Your task to perform on an android device: See recent photos Image 0: 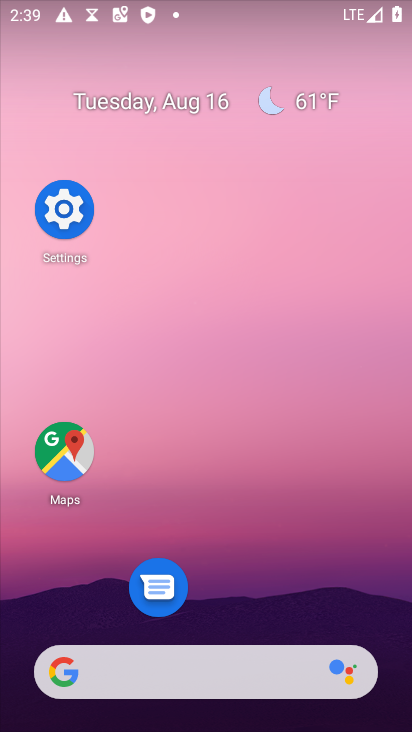
Step 0: drag from (240, 631) to (393, 0)
Your task to perform on an android device: See recent photos Image 1: 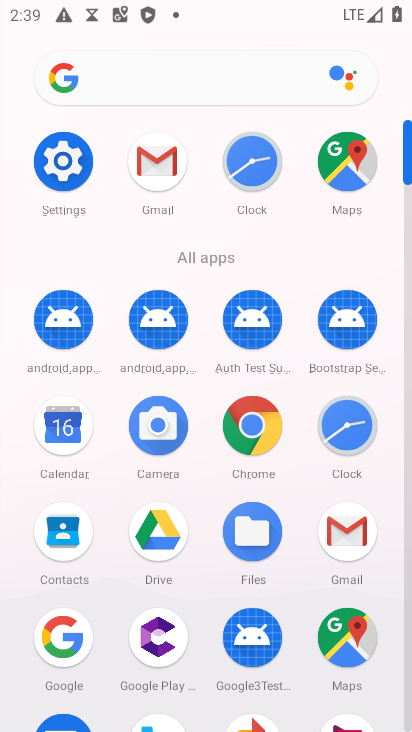
Step 1: drag from (202, 682) to (249, 116)
Your task to perform on an android device: See recent photos Image 2: 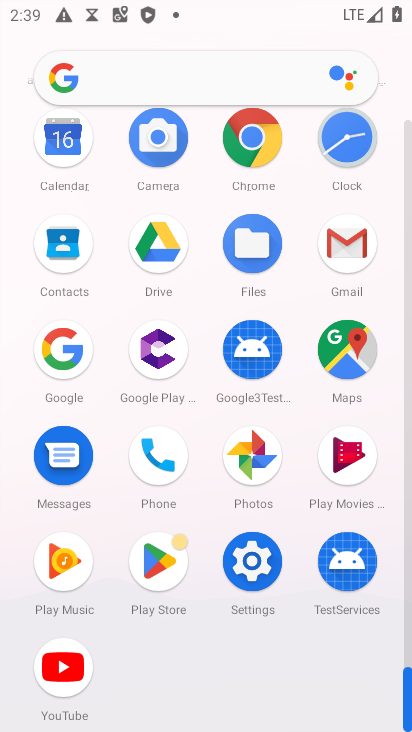
Step 2: click (264, 468)
Your task to perform on an android device: See recent photos Image 3: 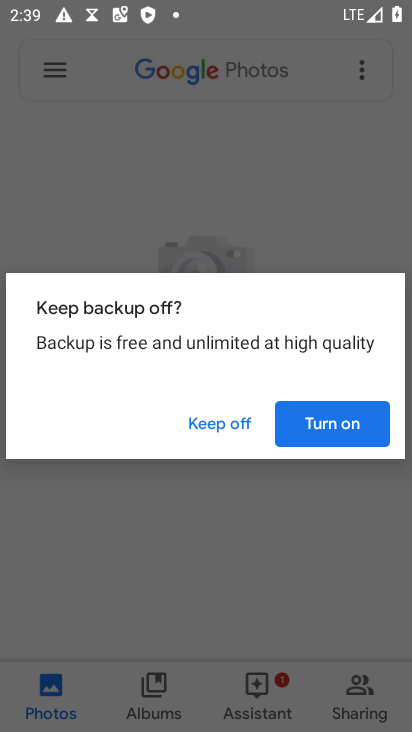
Step 3: click (202, 416)
Your task to perform on an android device: See recent photos Image 4: 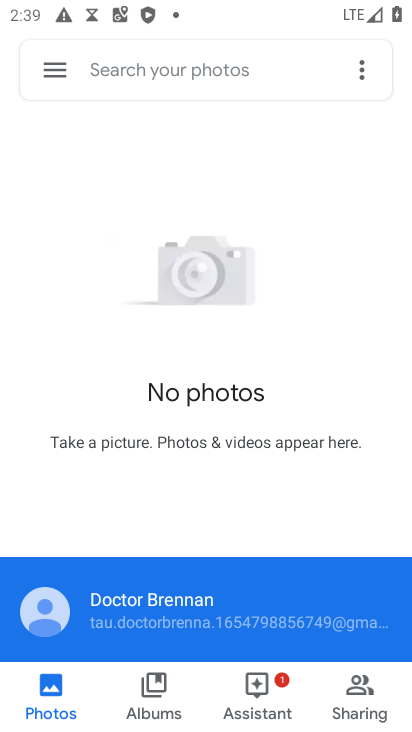
Step 4: click (46, 699)
Your task to perform on an android device: See recent photos Image 5: 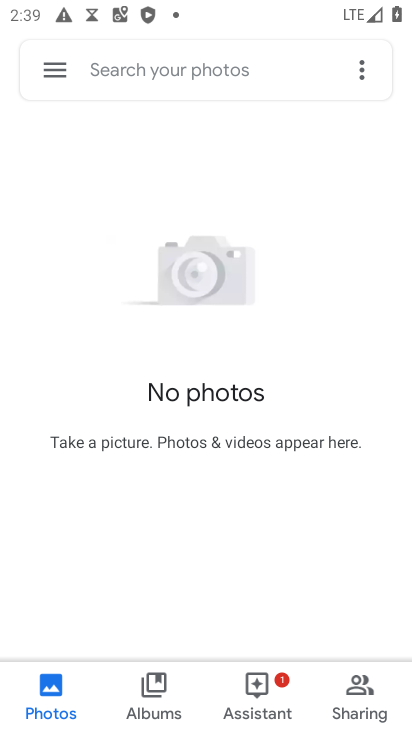
Step 5: task complete